Your task to perform on an android device: Go to location settings Image 0: 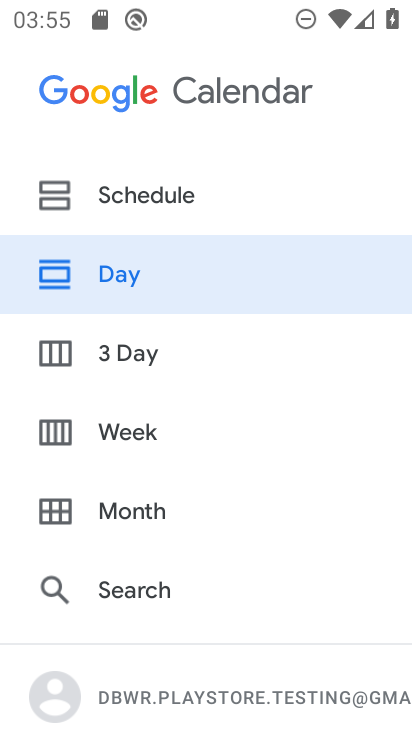
Step 0: press home button
Your task to perform on an android device: Go to location settings Image 1: 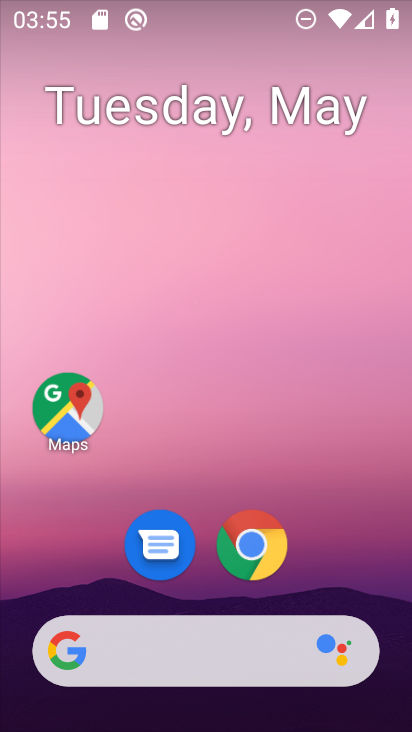
Step 1: drag from (374, 617) to (328, 70)
Your task to perform on an android device: Go to location settings Image 2: 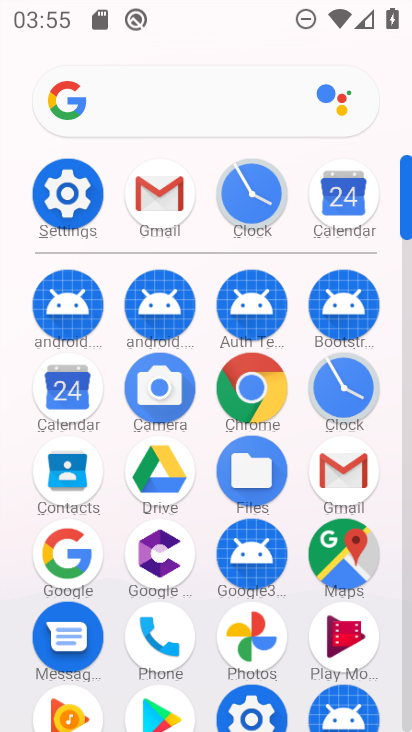
Step 2: click (409, 676)
Your task to perform on an android device: Go to location settings Image 3: 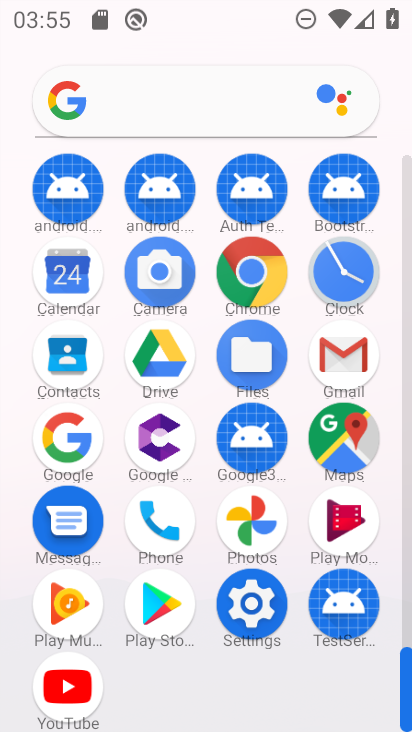
Step 3: click (250, 607)
Your task to perform on an android device: Go to location settings Image 4: 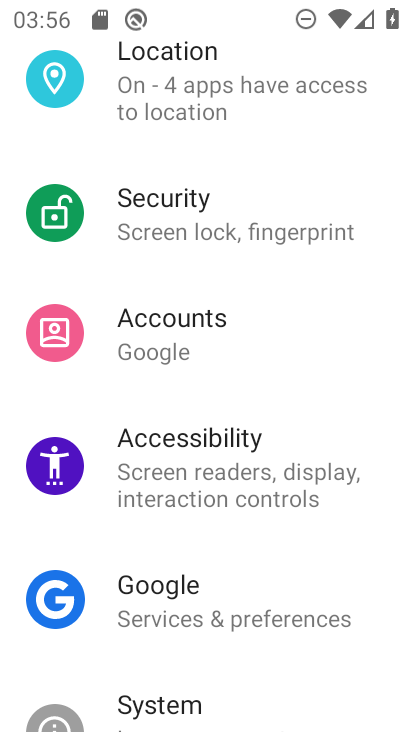
Step 4: drag from (239, 159) to (208, 424)
Your task to perform on an android device: Go to location settings Image 5: 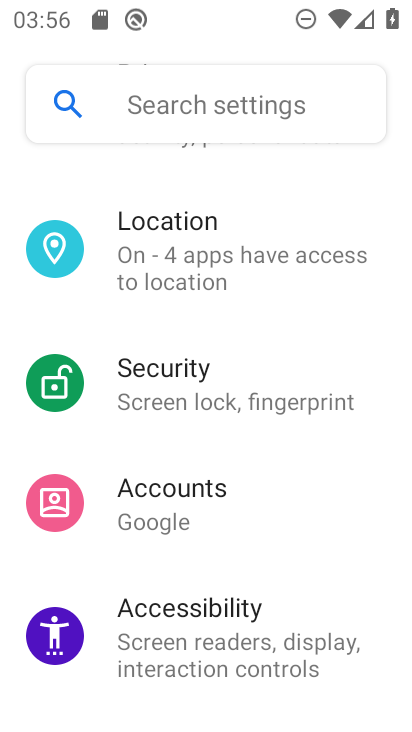
Step 5: click (212, 250)
Your task to perform on an android device: Go to location settings Image 6: 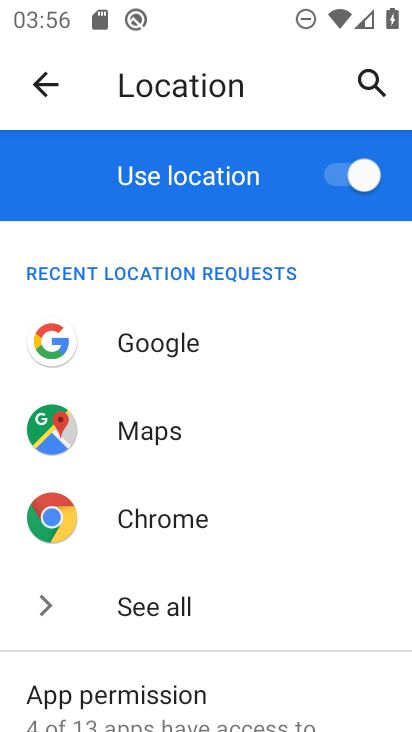
Step 6: task complete